Your task to perform on an android device: find photos in the google photos app Image 0: 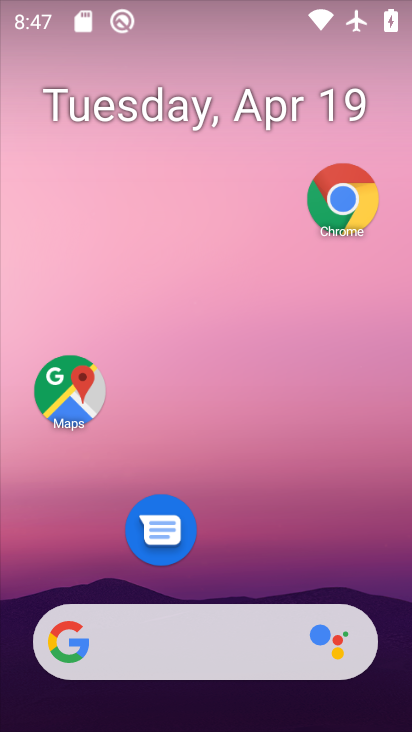
Step 0: click (404, 467)
Your task to perform on an android device: find photos in the google photos app Image 1: 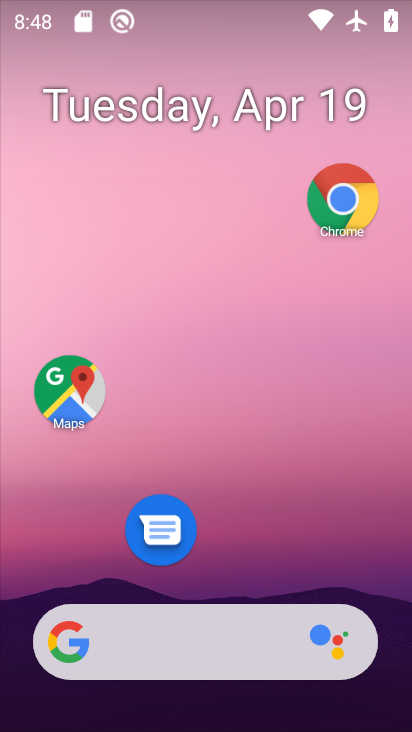
Step 1: drag from (261, 487) to (296, 221)
Your task to perform on an android device: find photos in the google photos app Image 2: 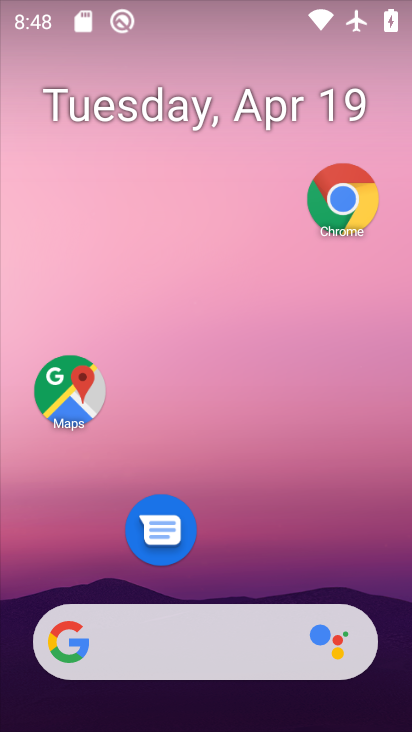
Step 2: drag from (213, 570) to (269, 266)
Your task to perform on an android device: find photos in the google photos app Image 3: 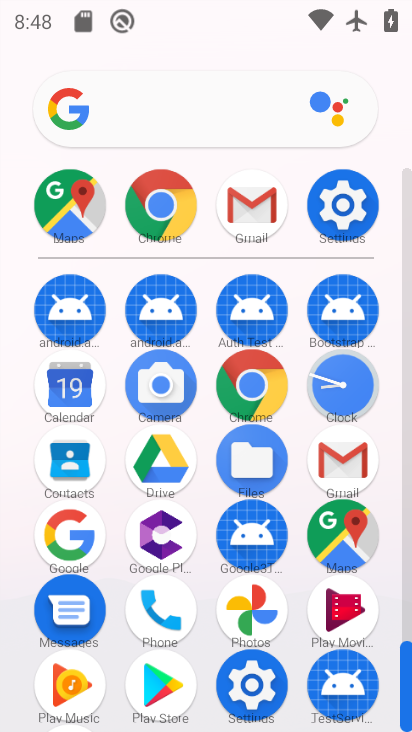
Step 3: click (253, 607)
Your task to perform on an android device: find photos in the google photos app Image 4: 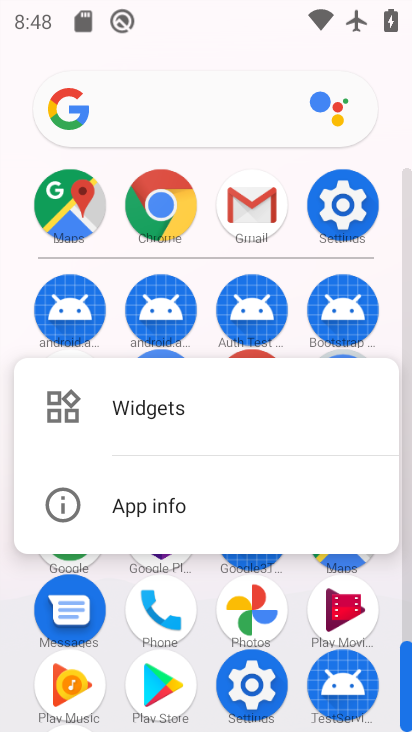
Step 4: click (79, 507)
Your task to perform on an android device: find photos in the google photos app Image 5: 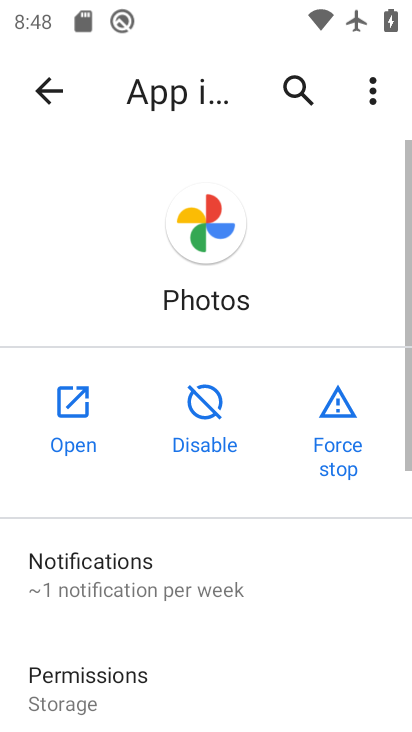
Step 5: click (84, 393)
Your task to perform on an android device: find photos in the google photos app Image 6: 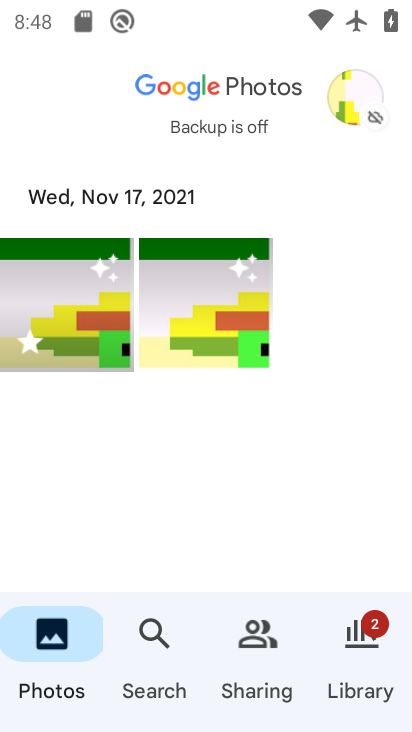
Step 6: click (193, 314)
Your task to perform on an android device: find photos in the google photos app Image 7: 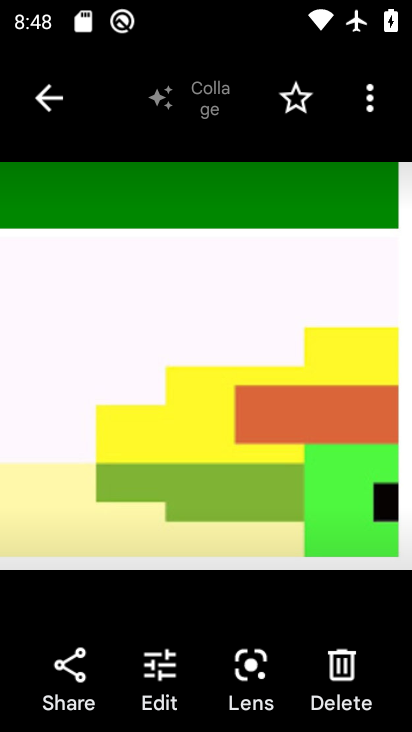
Step 7: task complete